Your task to perform on an android device: turn on javascript in the chrome app Image 0: 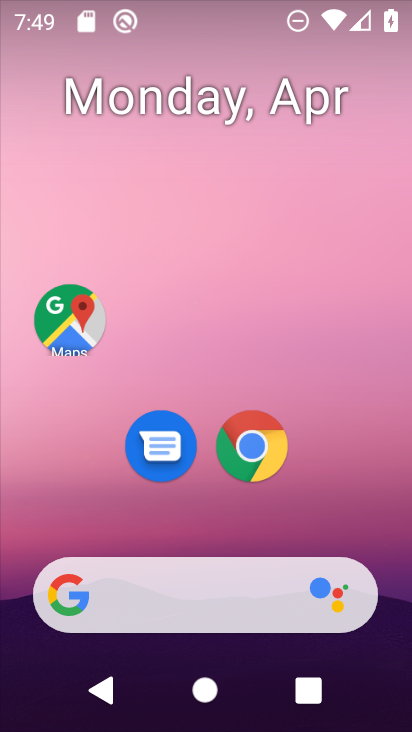
Step 0: drag from (409, 544) to (288, 1)
Your task to perform on an android device: turn on javascript in the chrome app Image 1: 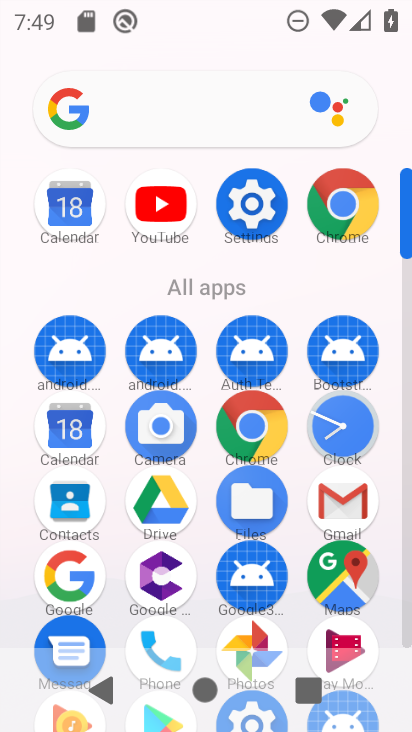
Step 1: click (257, 428)
Your task to perform on an android device: turn on javascript in the chrome app Image 2: 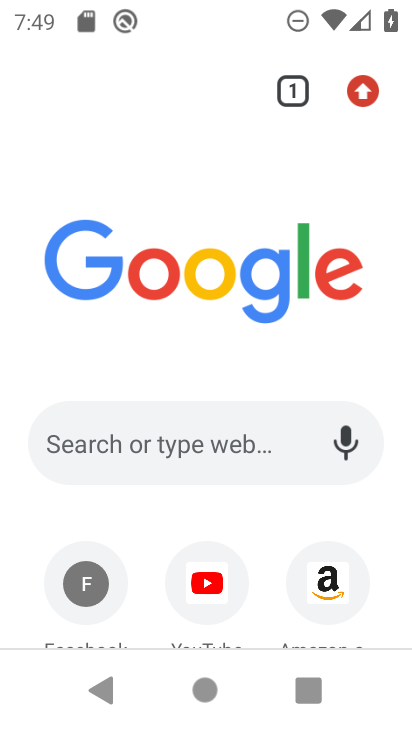
Step 2: drag from (364, 83) to (194, 465)
Your task to perform on an android device: turn on javascript in the chrome app Image 3: 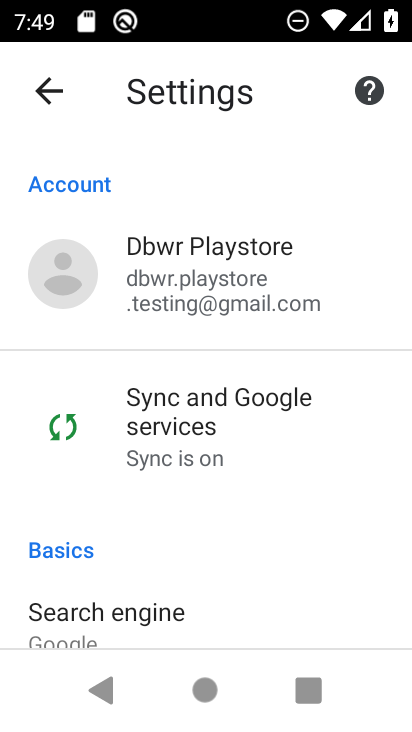
Step 3: drag from (273, 525) to (235, 148)
Your task to perform on an android device: turn on javascript in the chrome app Image 4: 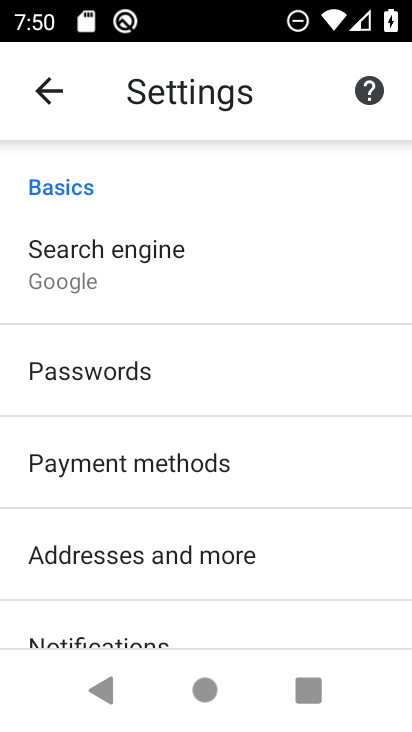
Step 4: drag from (271, 479) to (275, 198)
Your task to perform on an android device: turn on javascript in the chrome app Image 5: 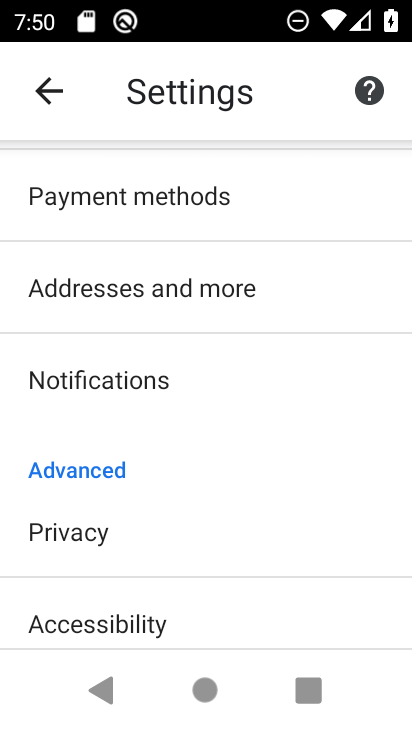
Step 5: drag from (257, 504) to (286, 251)
Your task to perform on an android device: turn on javascript in the chrome app Image 6: 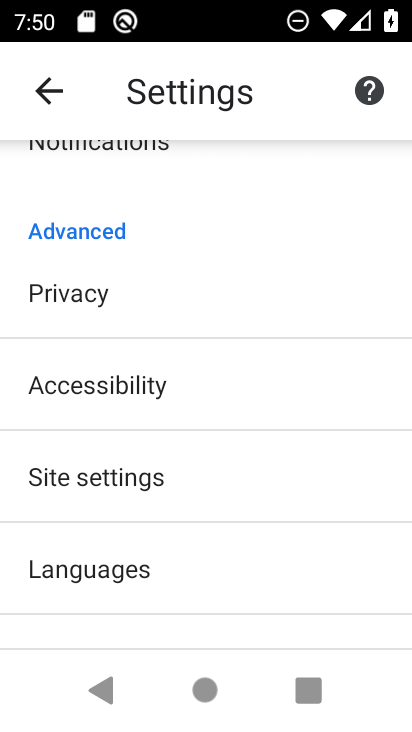
Step 6: click (155, 474)
Your task to perform on an android device: turn on javascript in the chrome app Image 7: 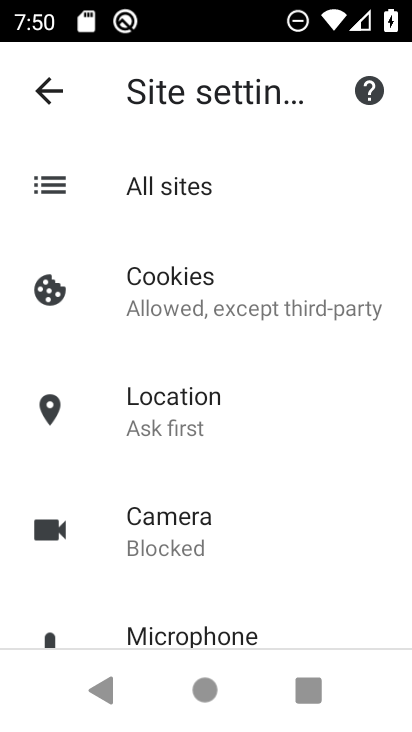
Step 7: drag from (279, 515) to (284, 184)
Your task to perform on an android device: turn on javascript in the chrome app Image 8: 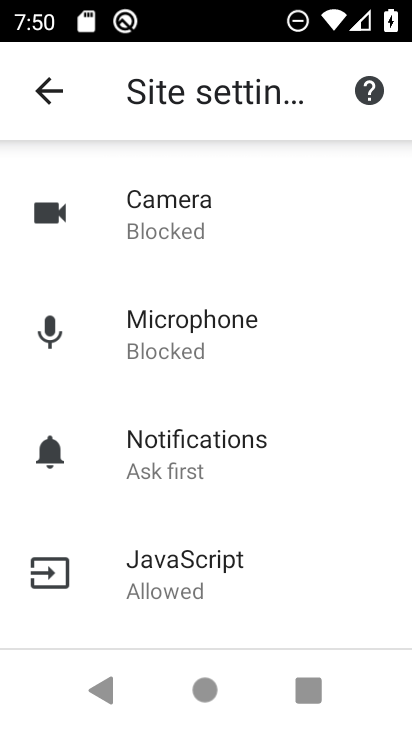
Step 8: click (245, 563)
Your task to perform on an android device: turn on javascript in the chrome app Image 9: 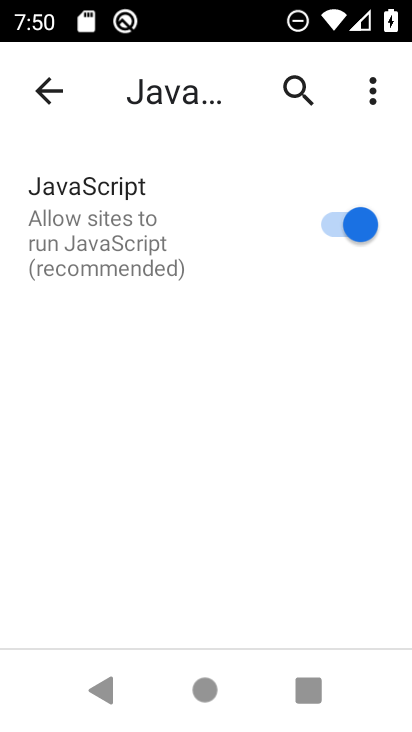
Step 9: task complete